Your task to perform on an android device: check storage Image 0: 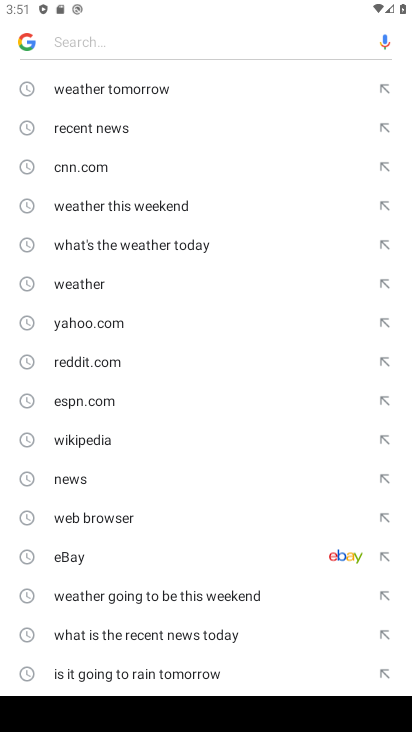
Step 0: press back button
Your task to perform on an android device: check storage Image 1: 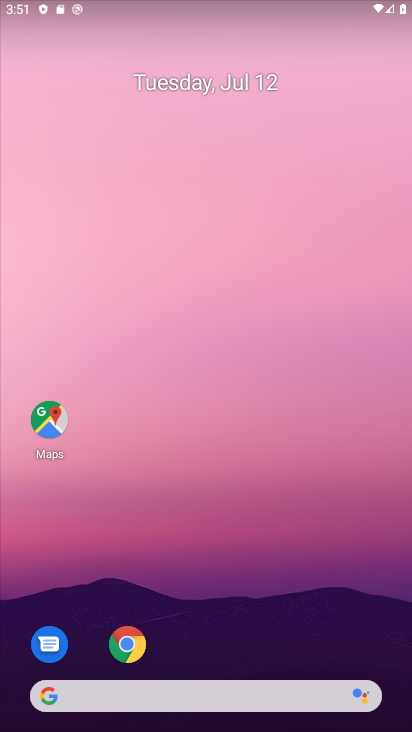
Step 1: drag from (221, 685) to (133, 218)
Your task to perform on an android device: check storage Image 2: 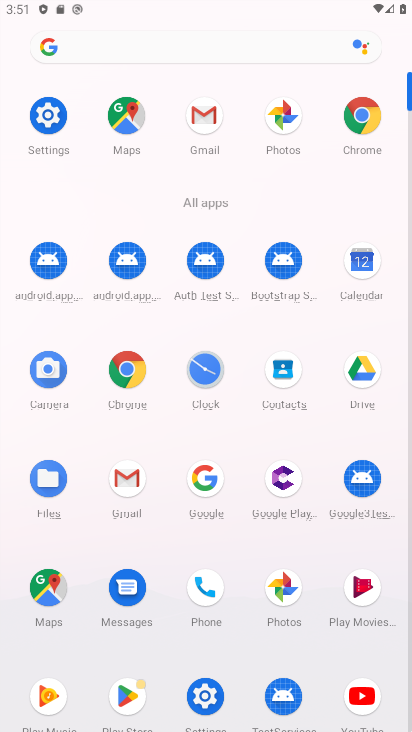
Step 2: click (39, 125)
Your task to perform on an android device: check storage Image 3: 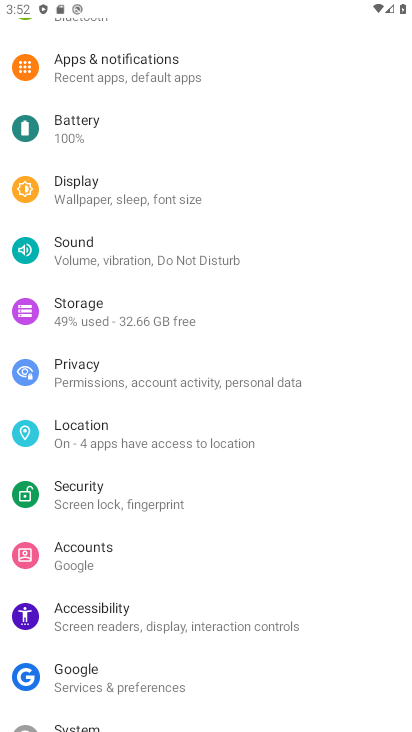
Step 3: click (97, 325)
Your task to perform on an android device: check storage Image 4: 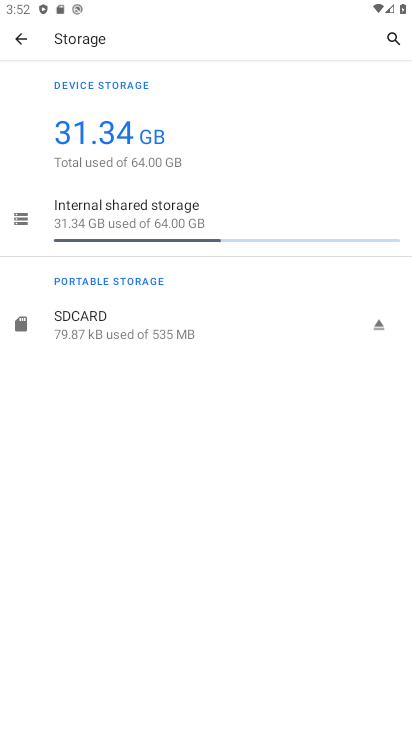
Step 4: task complete